Your task to perform on an android device: see tabs open on other devices in the chrome app Image 0: 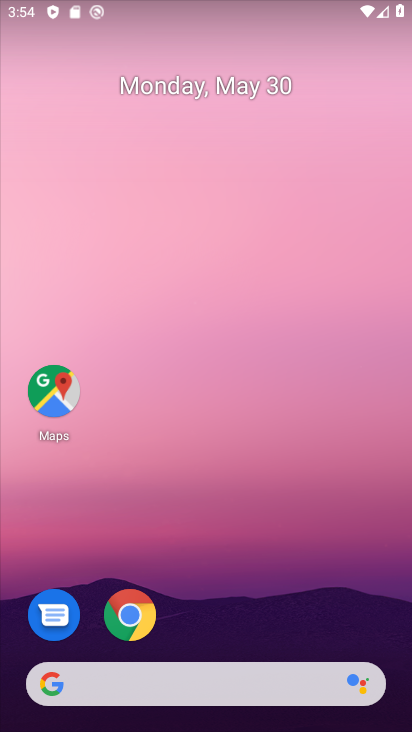
Step 0: click (119, 610)
Your task to perform on an android device: see tabs open on other devices in the chrome app Image 1: 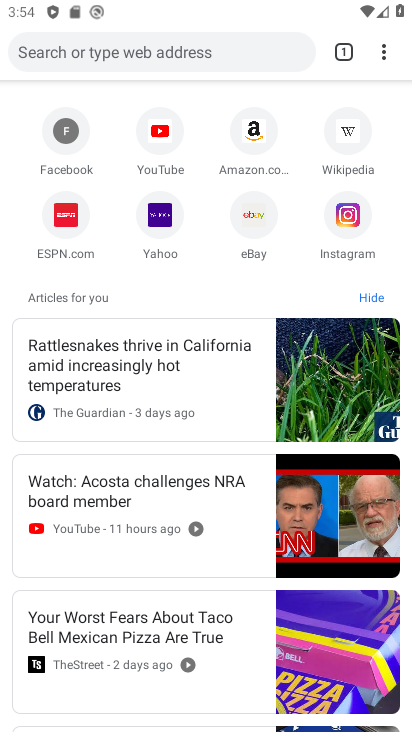
Step 1: click (376, 57)
Your task to perform on an android device: see tabs open on other devices in the chrome app Image 2: 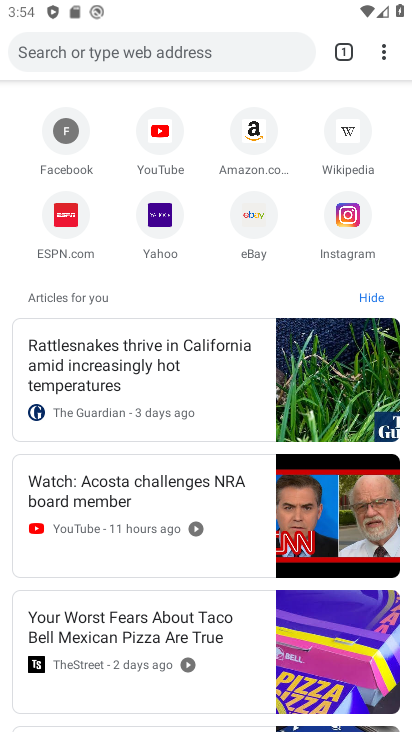
Step 2: click (377, 57)
Your task to perform on an android device: see tabs open on other devices in the chrome app Image 3: 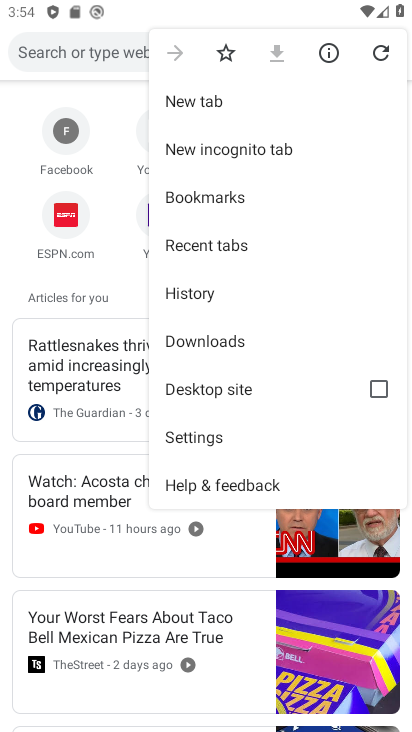
Step 3: click (203, 238)
Your task to perform on an android device: see tabs open on other devices in the chrome app Image 4: 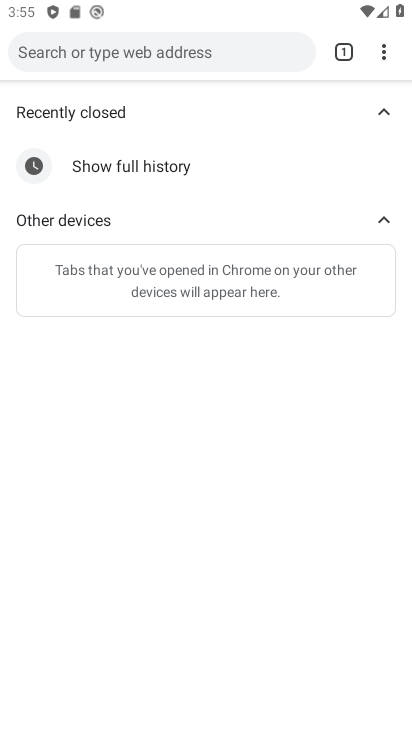
Step 4: task complete